Your task to perform on an android device: Add razer blade to the cart on ebay.com, then select checkout. Image 0: 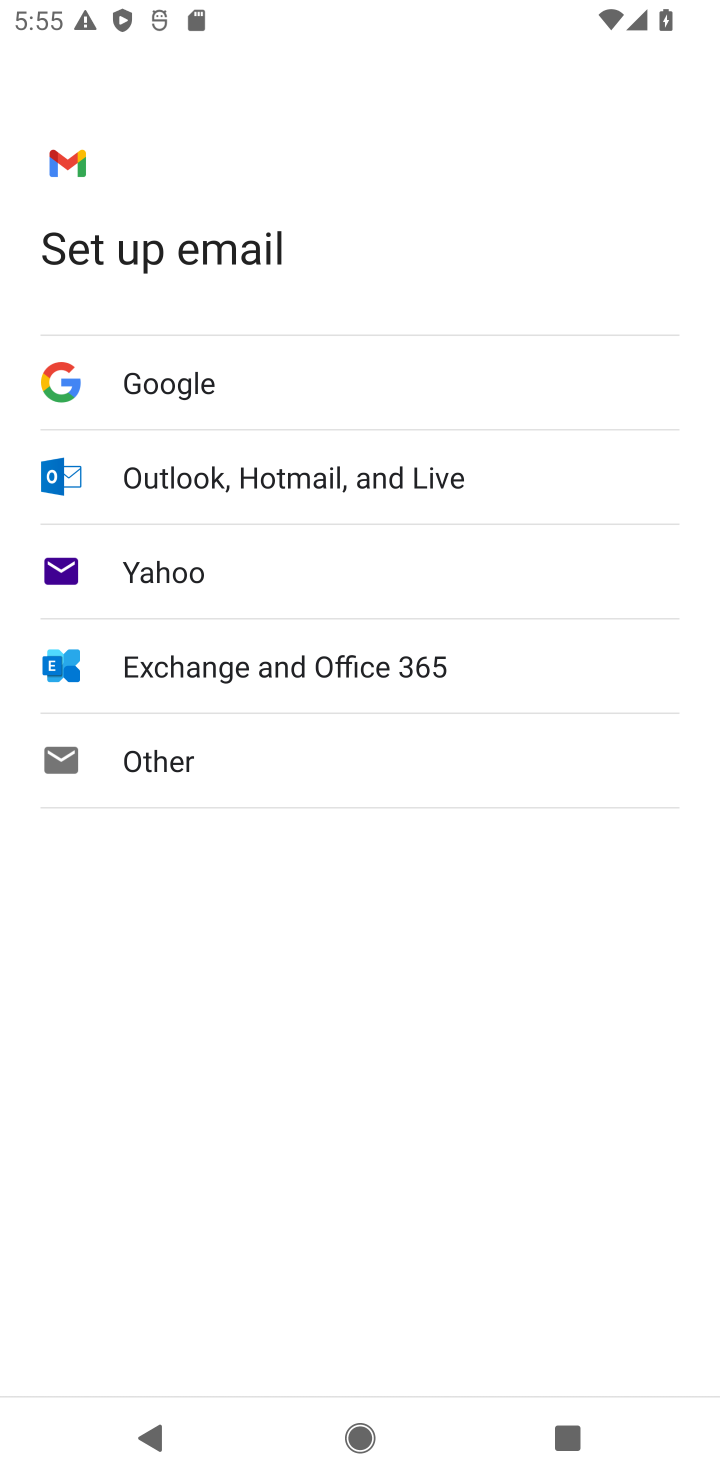
Step 0: press home button
Your task to perform on an android device: Add razer blade to the cart on ebay.com, then select checkout. Image 1: 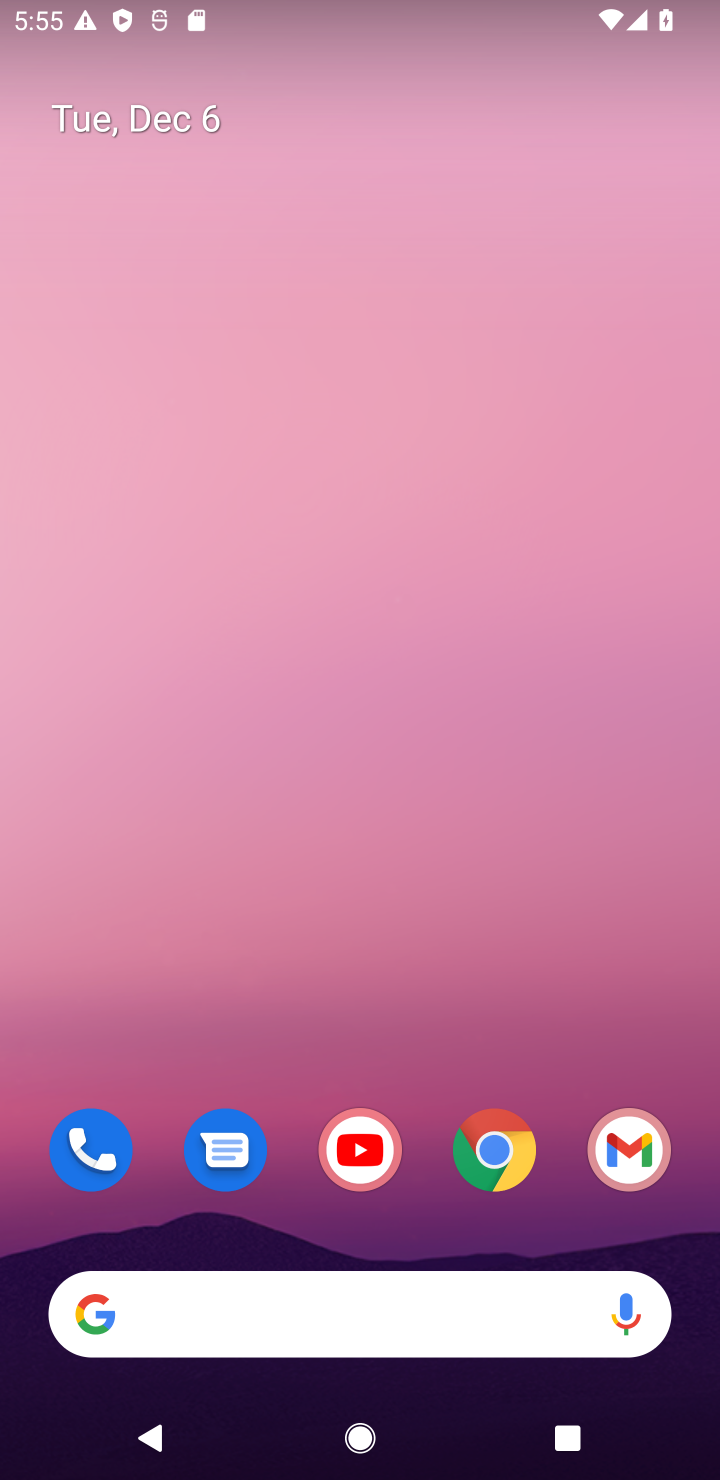
Step 1: click (496, 1163)
Your task to perform on an android device: Add razer blade to the cart on ebay.com, then select checkout. Image 2: 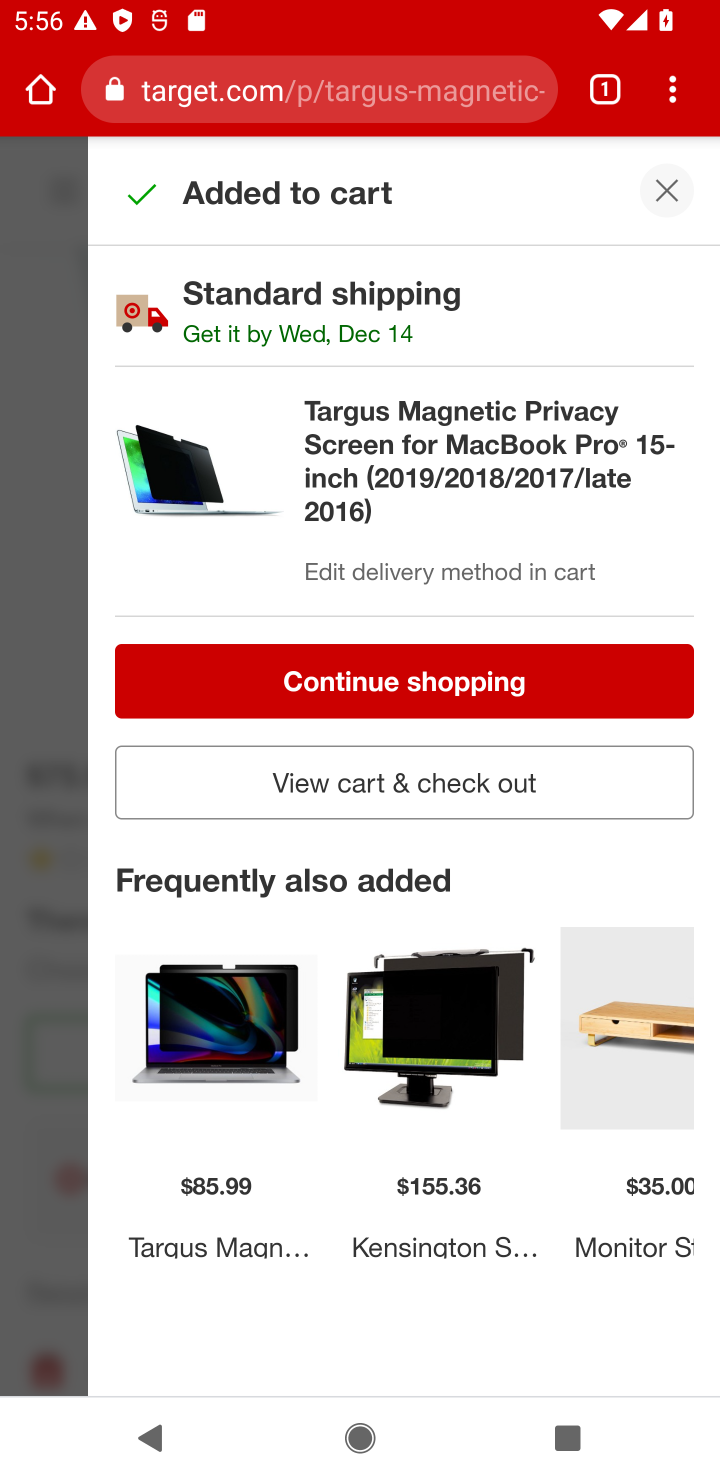
Step 2: click (261, 93)
Your task to perform on an android device: Add razer blade to the cart on ebay.com, then select checkout. Image 3: 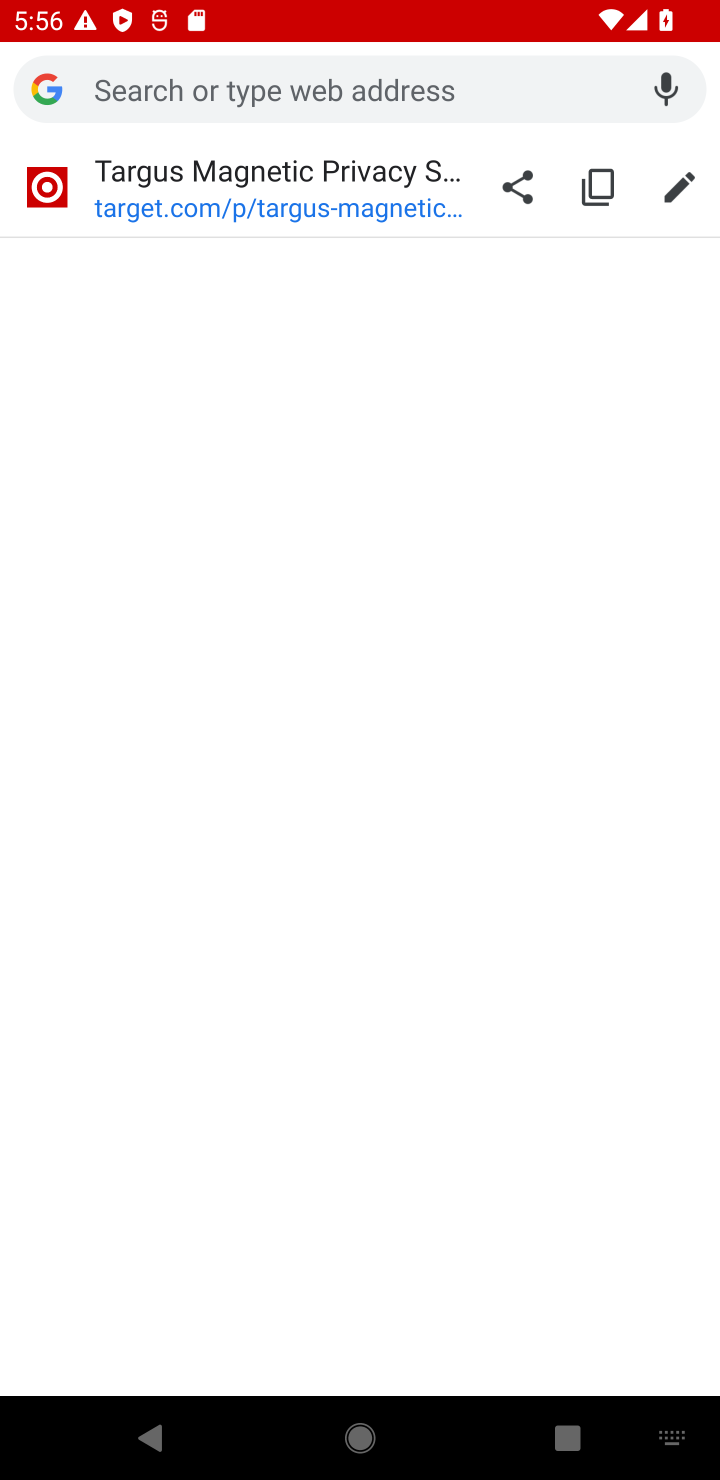
Step 3: type "ebay.com"
Your task to perform on an android device: Add razer blade to the cart on ebay.com, then select checkout. Image 4: 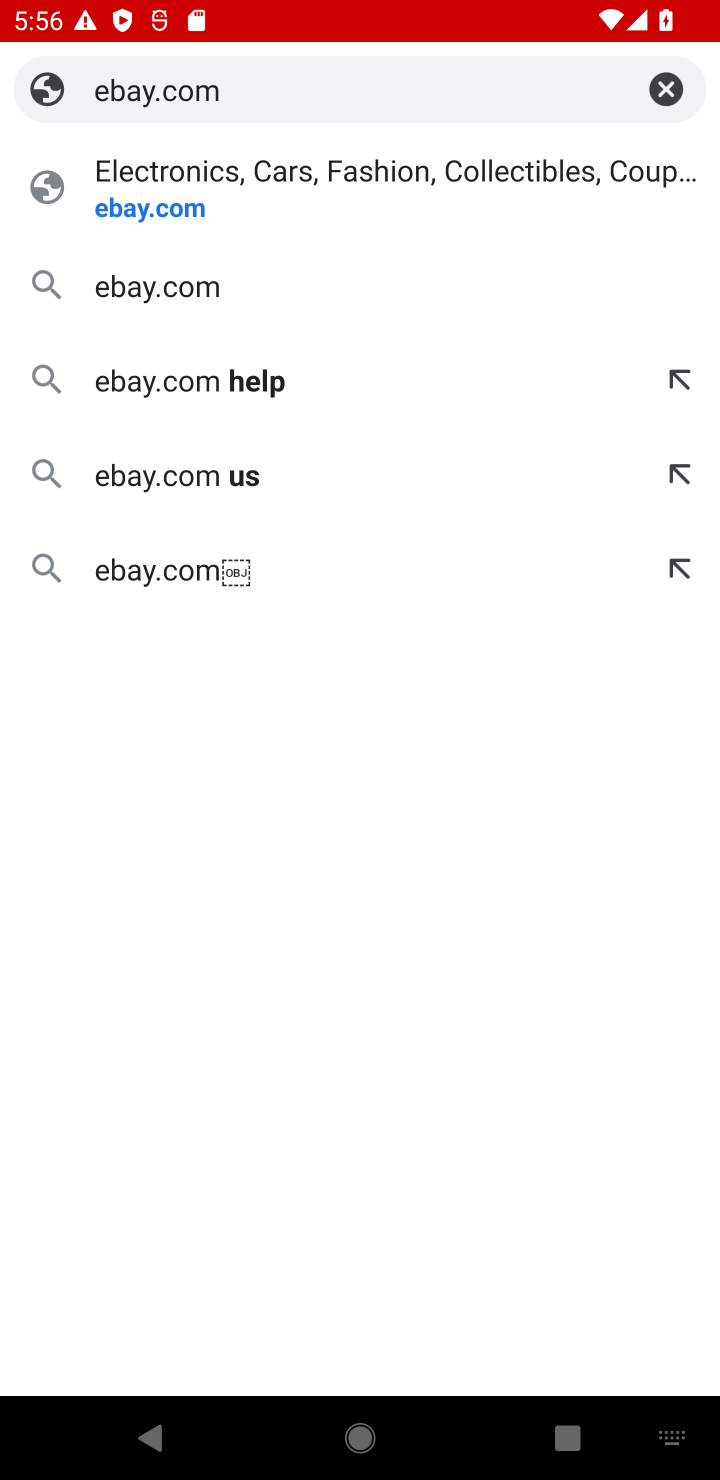
Step 4: click (150, 216)
Your task to perform on an android device: Add razer blade to the cart on ebay.com, then select checkout. Image 5: 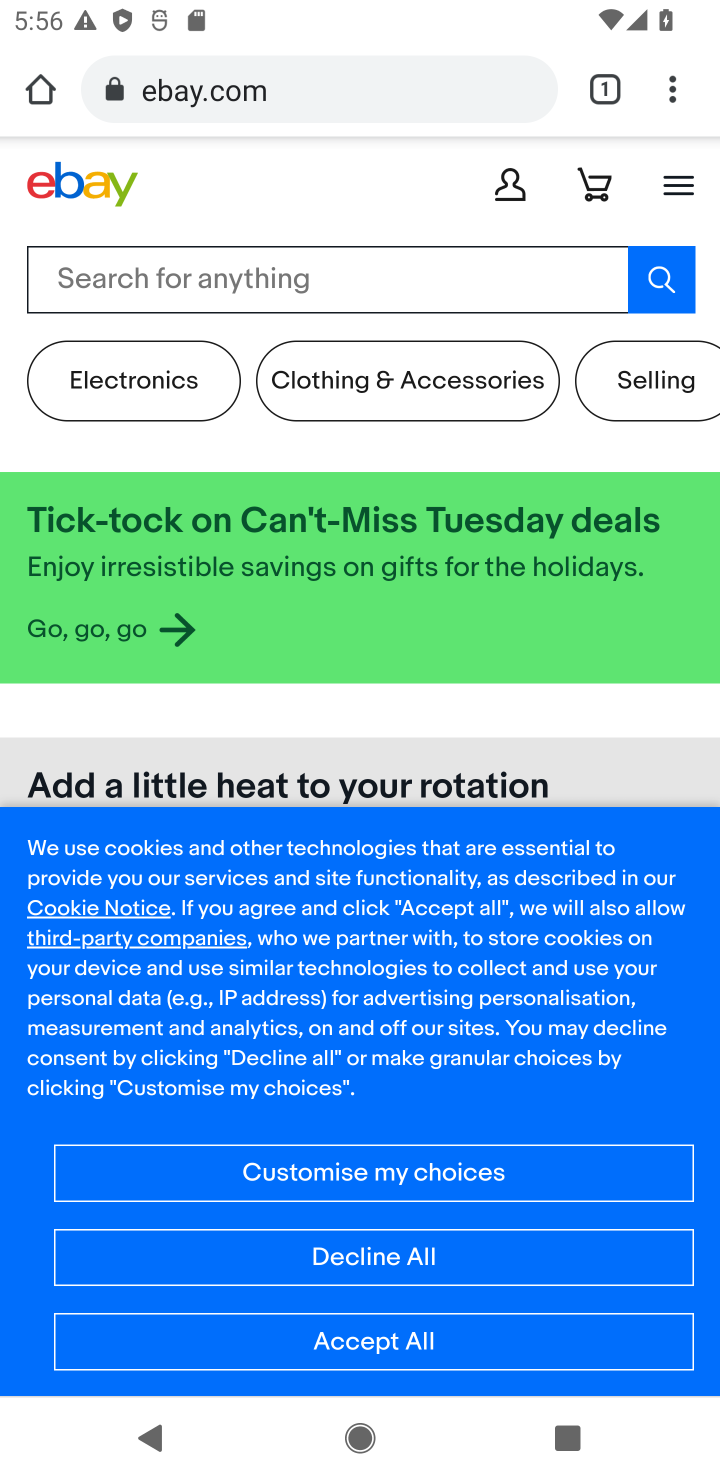
Step 5: click (116, 281)
Your task to perform on an android device: Add razer blade to the cart on ebay.com, then select checkout. Image 6: 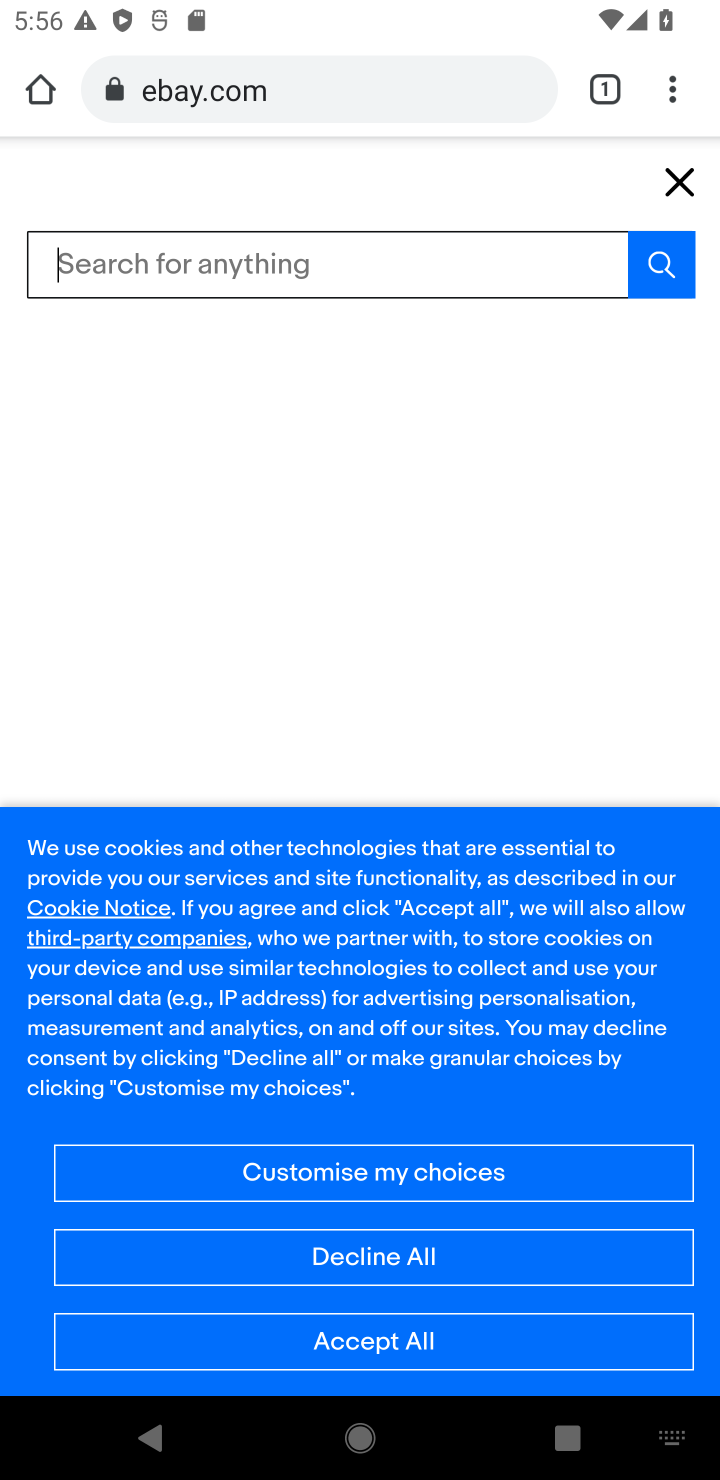
Step 6: type "razer blade"
Your task to perform on an android device: Add razer blade to the cart on ebay.com, then select checkout. Image 7: 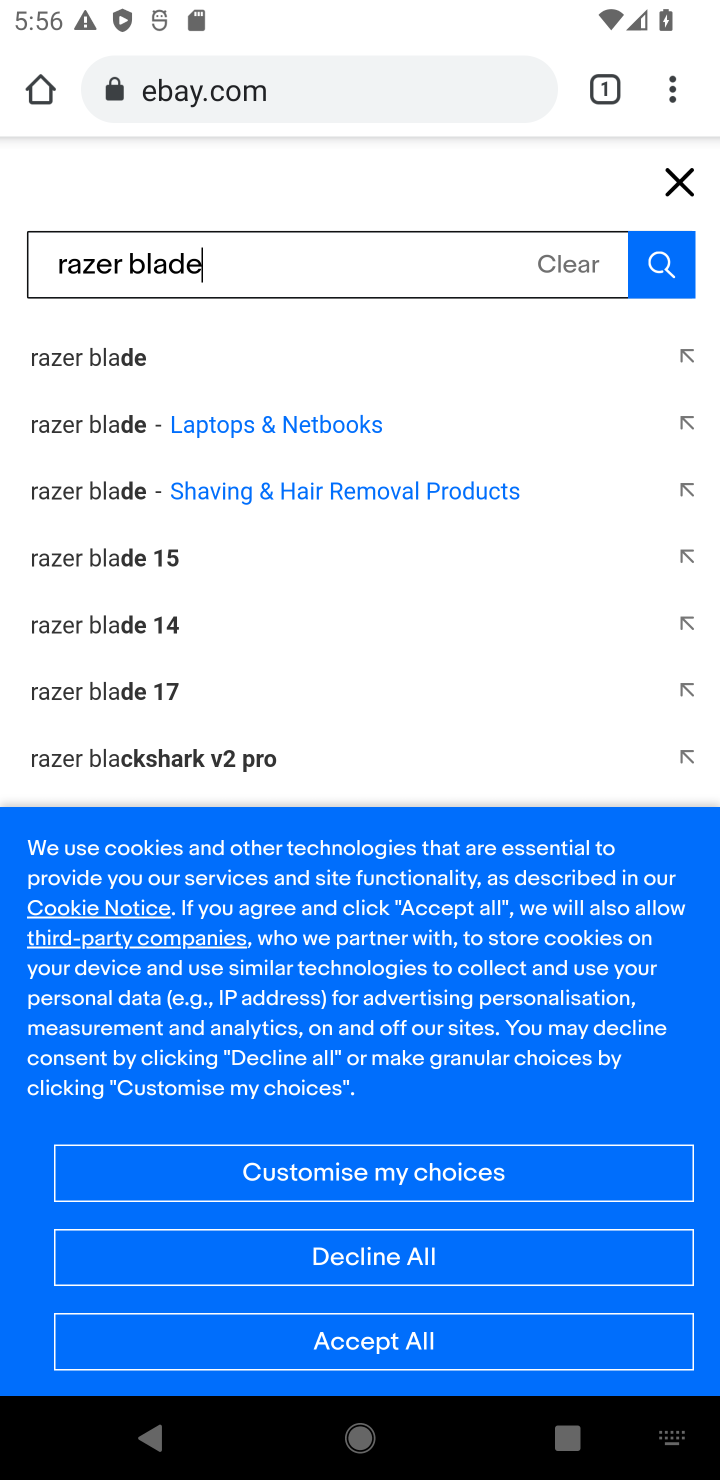
Step 7: click (70, 361)
Your task to perform on an android device: Add razer blade to the cart on ebay.com, then select checkout. Image 8: 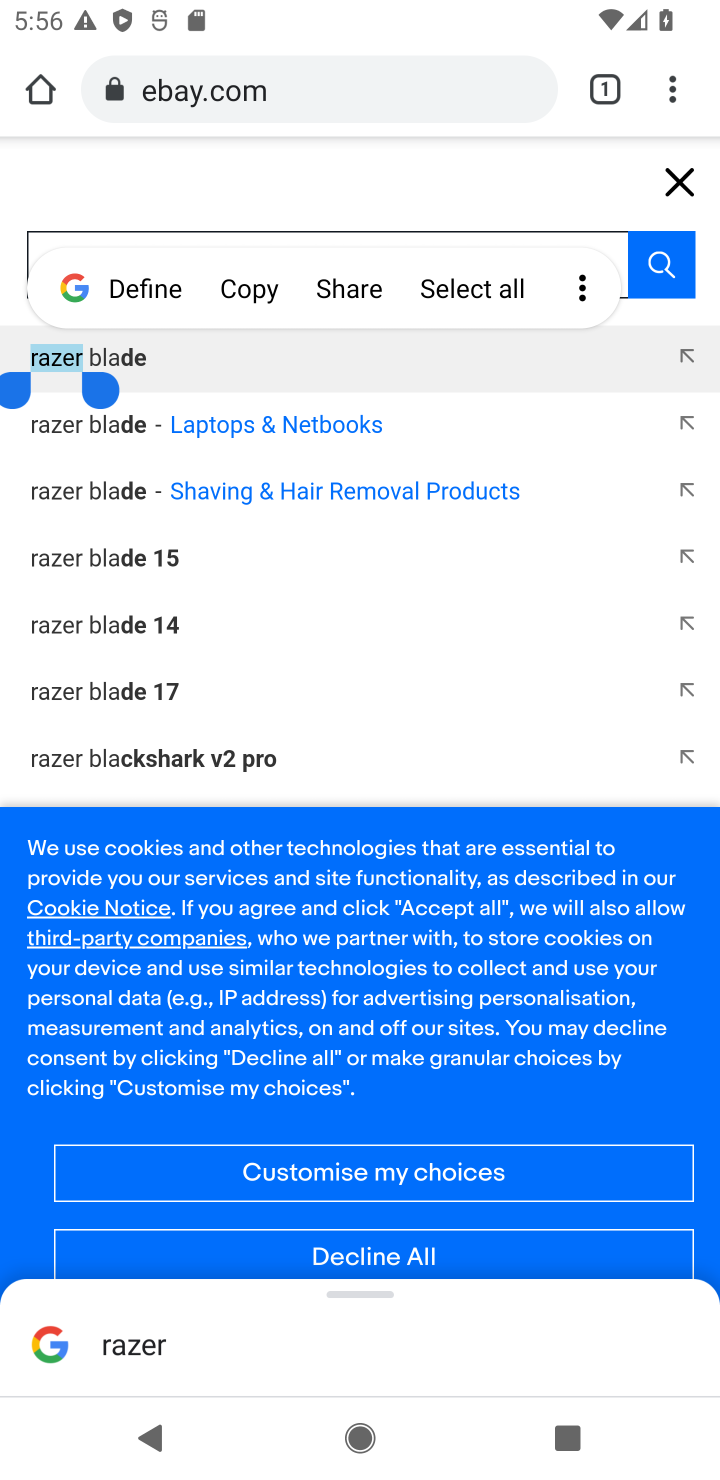
Step 8: click (116, 369)
Your task to perform on an android device: Add razer blade to the cart on ebay.com, then select checkout. Image 9: 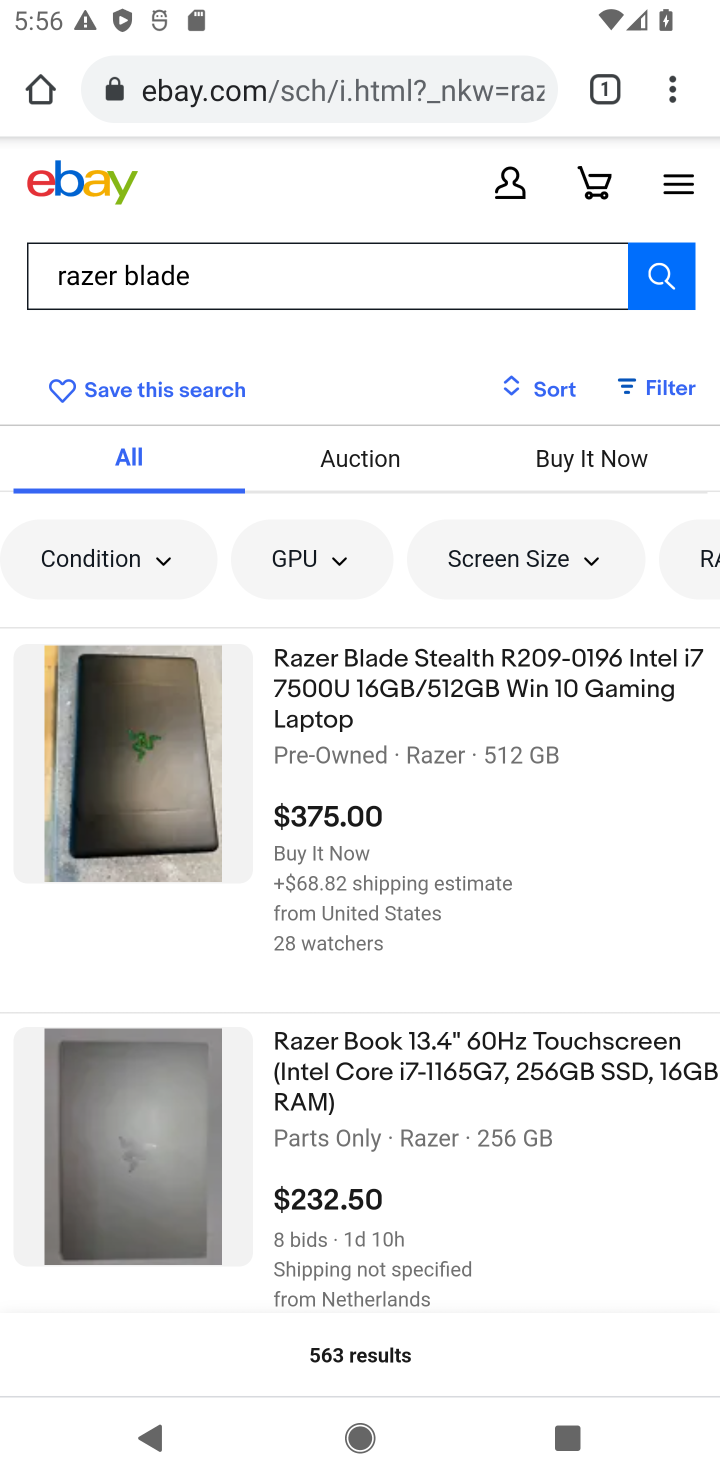
Step 9: click (327, 692)
Your task to perform on an android device: Add razer blade to the cart on ebay.com, then select checkout. Image 10: 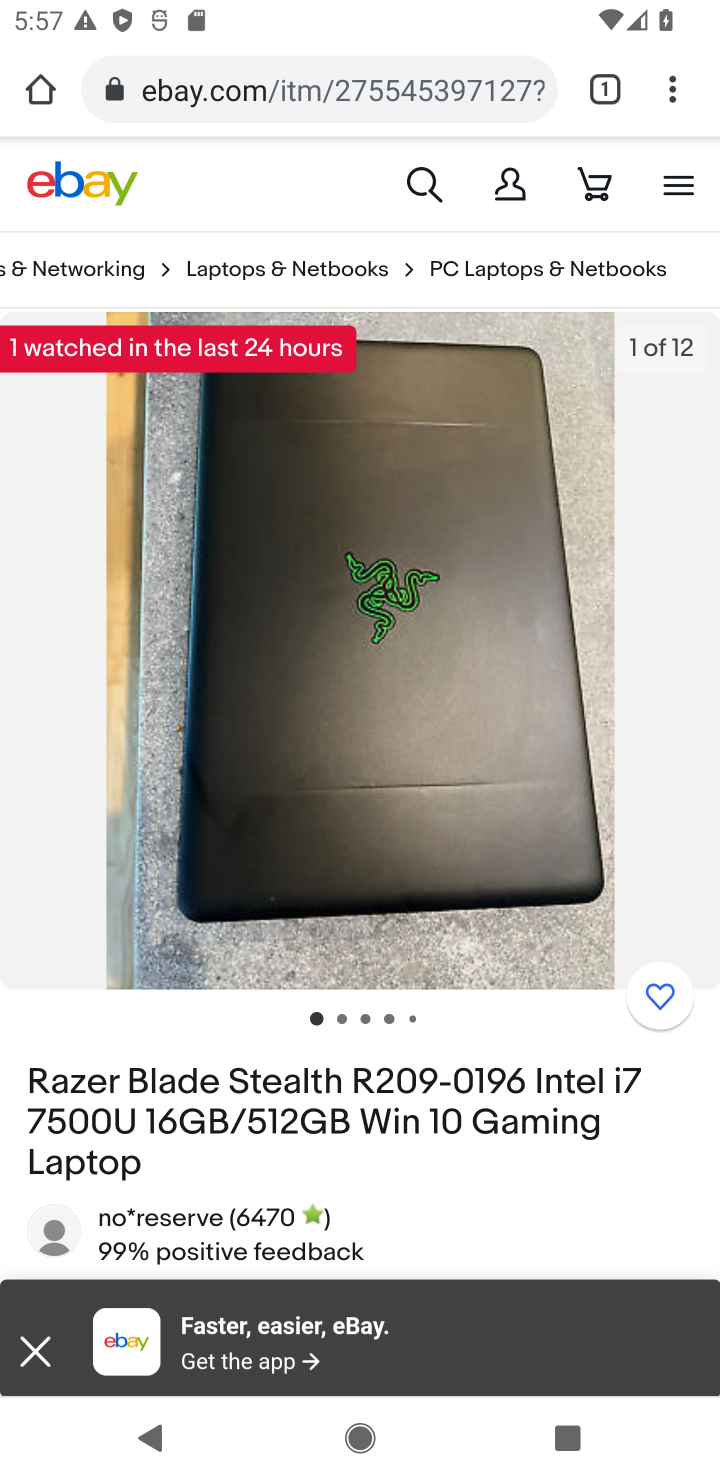
Step 10: drag from (370, 1081) to (357, 537)
Your task to perform on an android device: Add razer blade to the cart on ebay.com, then select checkout. Image 11: 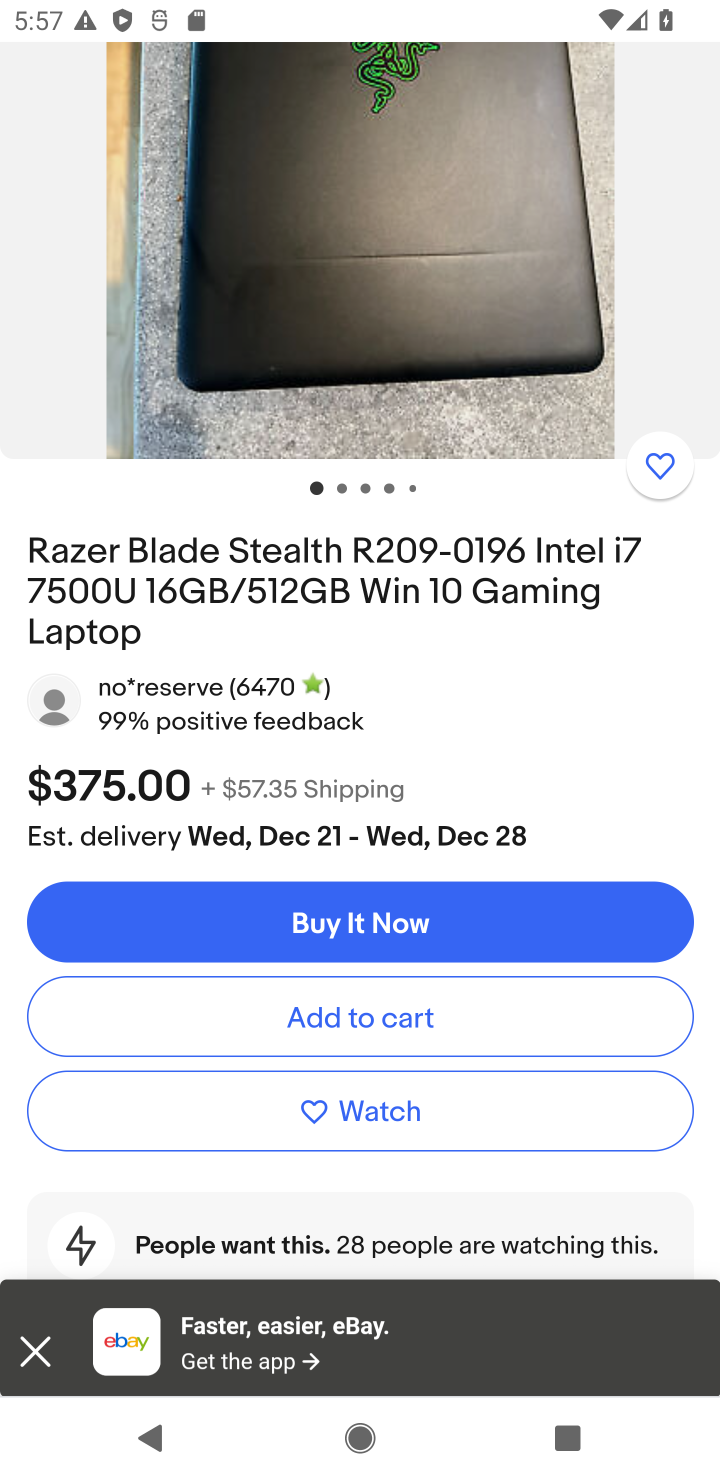
Step 11: click (317, 1018)
Your task to perform on an android device: Add razer blade to the cart on ebay.com, then select checkout. Image 12: 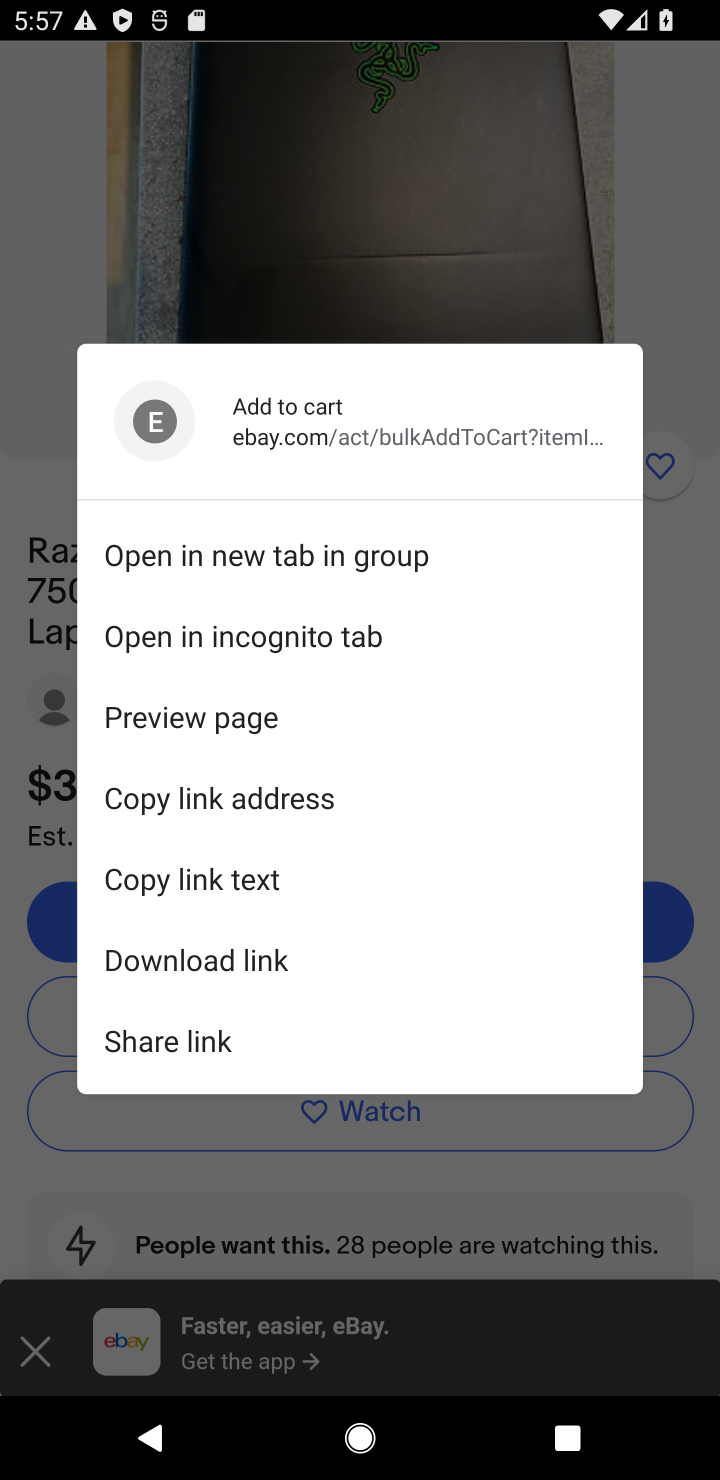
Step 12: click (681, 1024)
Your task to perform on an android device: Add razer blade to the cart on ebay.com, then select checkout. Image 13: 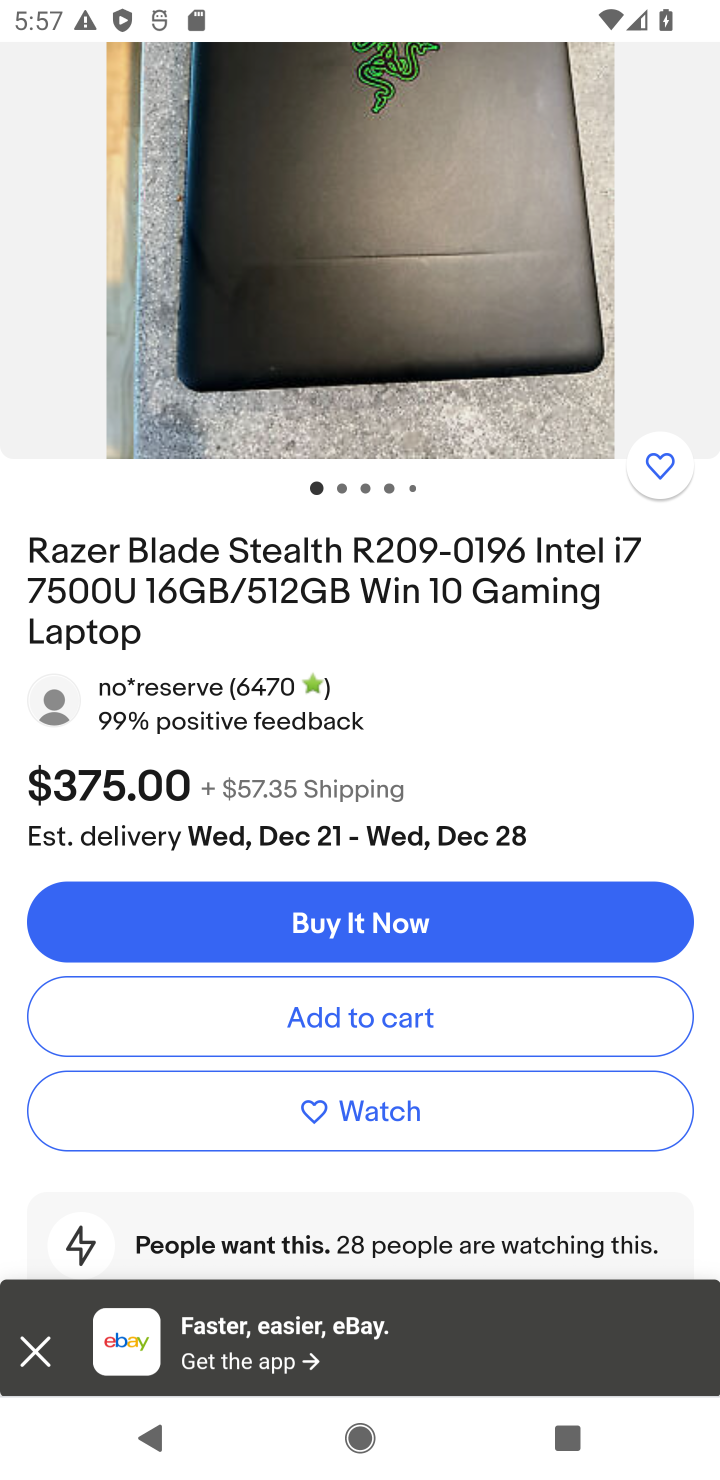
Step 13: click (335, 989)
Your task to perform on an android device: Add razer blade to the cart on ebay.com, then select checkout. Image 14: 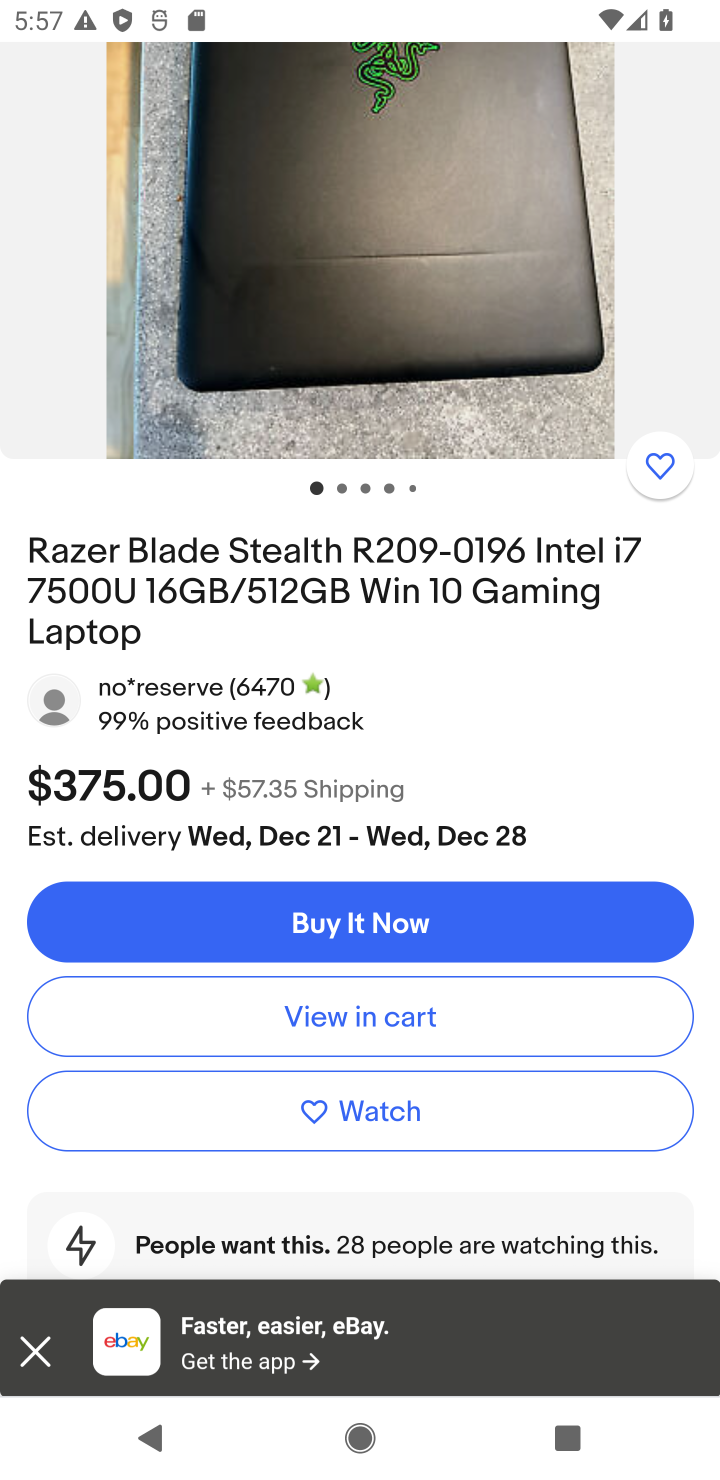
Step 14: click (343, 1013)
Your task to perform on an android device: Add razer blade to the cart on ebay.com, then select checkout. Image 15: 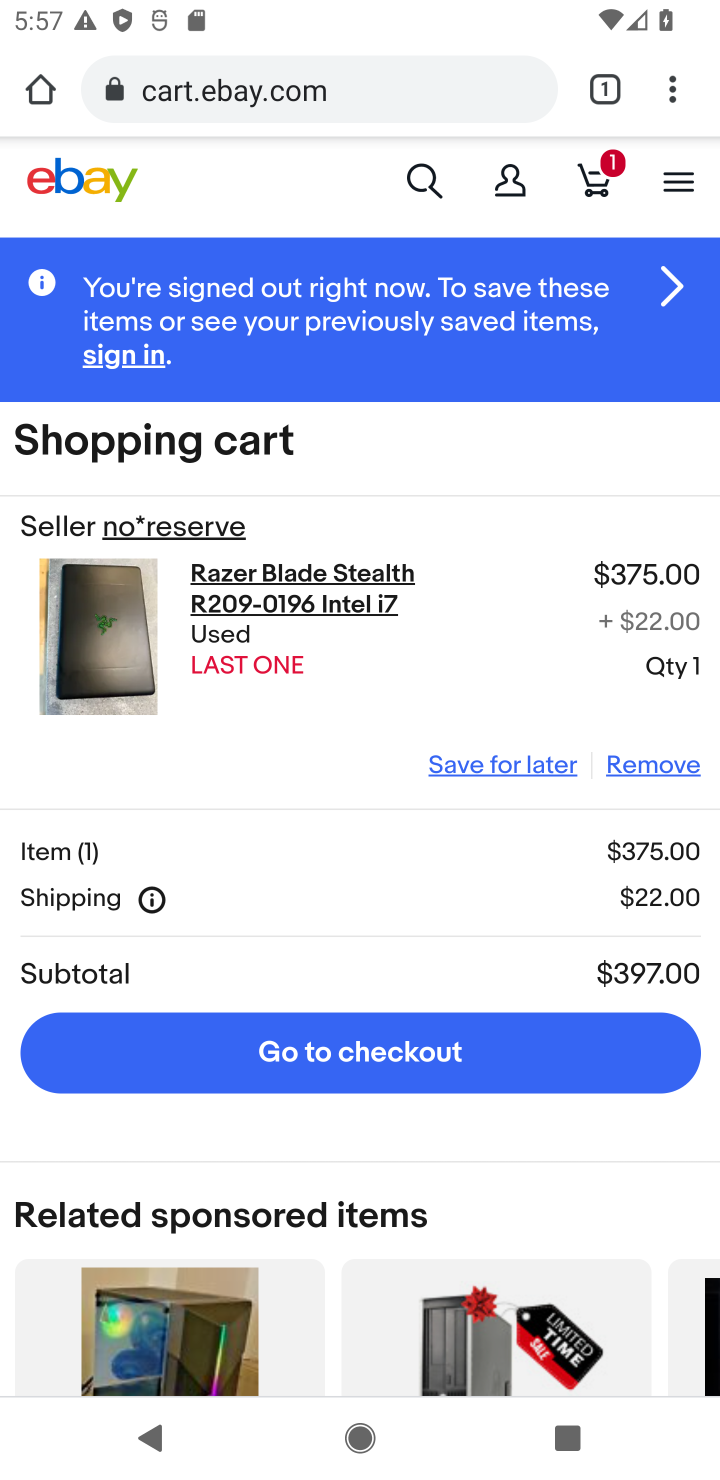
Step 15: click (335, 1045)
Your task to perform on an android device: Add razer blade to the cart on ebay.com, then select checkout. Image 16: 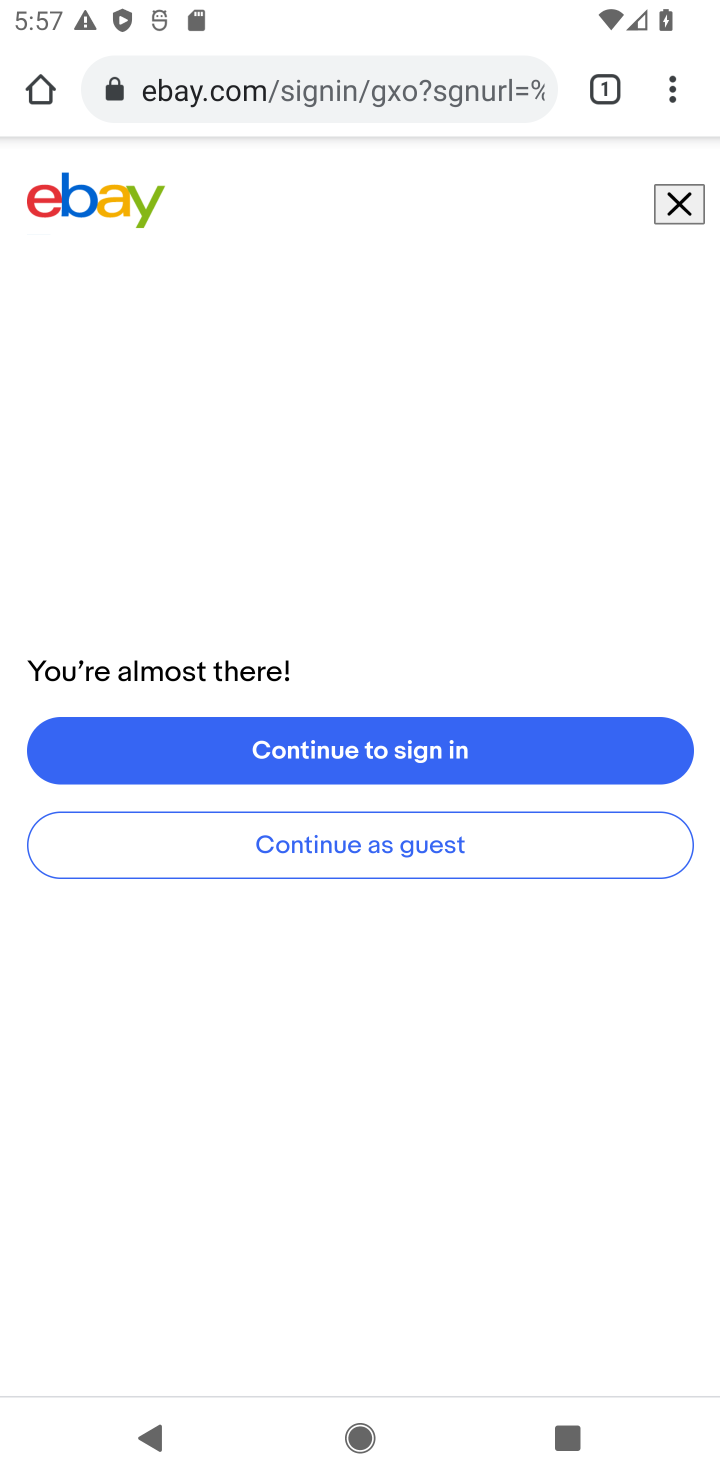
Step 16: task complete